Your task to perform on an android device: toggle airplane mode Image 0: 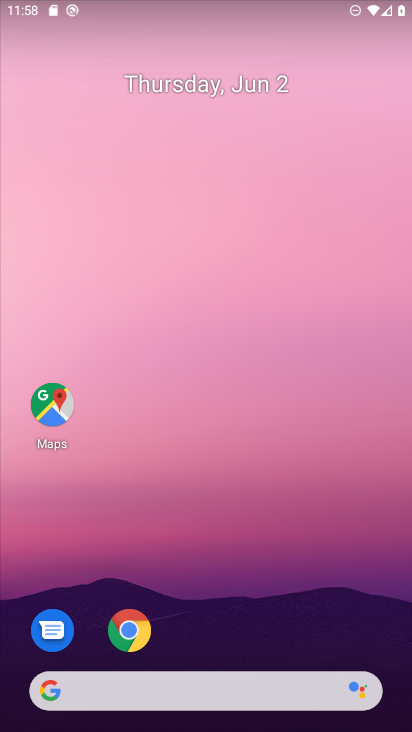
Step 0: drag from (253, 639) to (160, 170)
Your task to perform on an android device: toggle airplane mode Image 1: 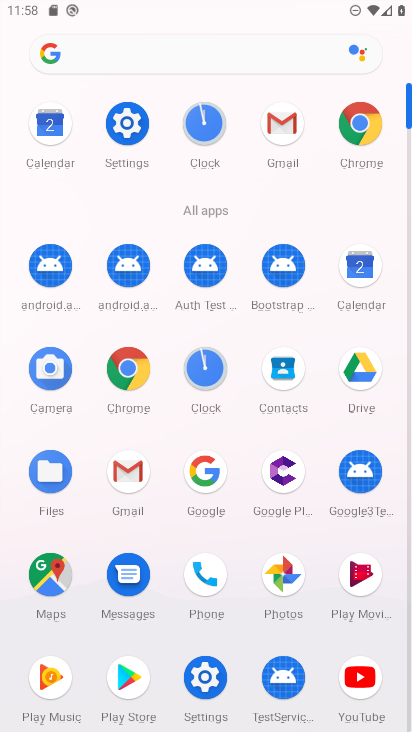
Step 1: click (126, 124)
Your task to perform on an android device: toggle airplane mode Image 2: 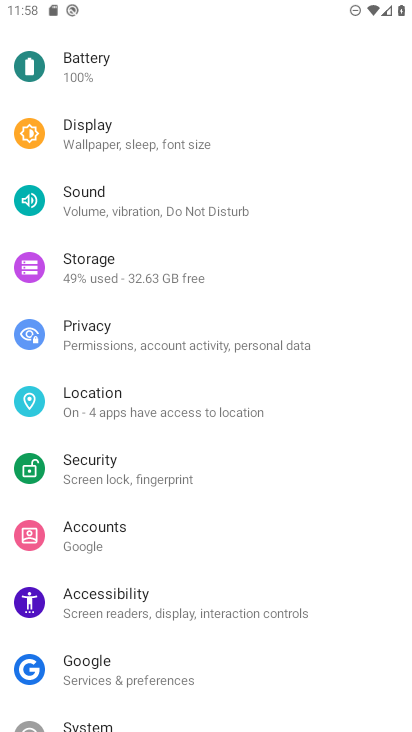
Step 2: drag from (168, 129) to (187, 620)
Your task to perform on an android device: toggle airplane mode Image 3: 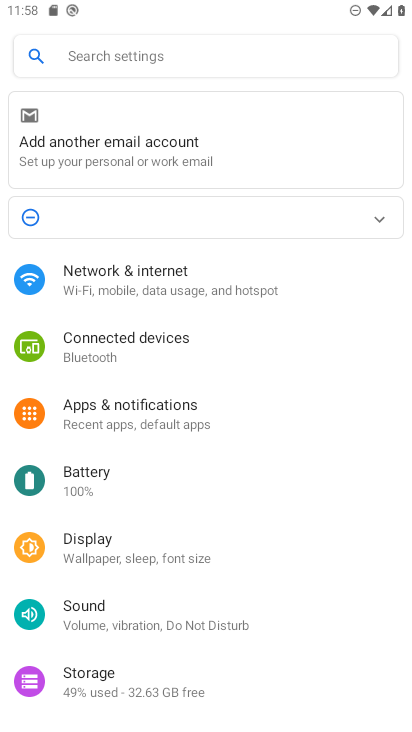
Step 3: click (226, 293)
Your task to perform on an android device: toggle airplane mode Image 4: 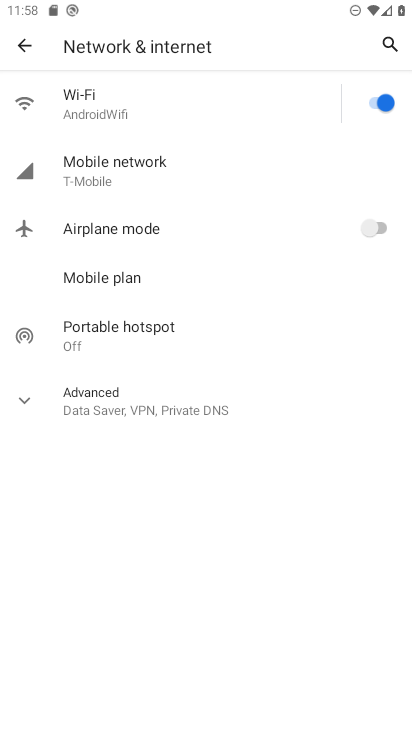
Step 4: click (368, 242)
Your task to perform on an android device: toggle airplane mode Image 5: 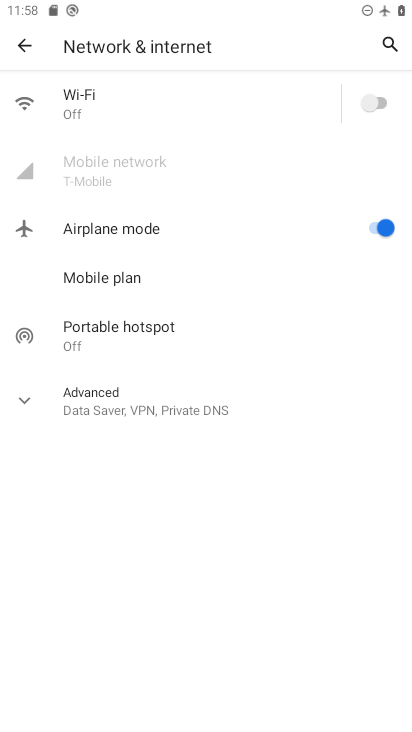
Step 5: task complete